Your task to perform on an android device: open app "Gmail" (install if not already installed) Image 0: 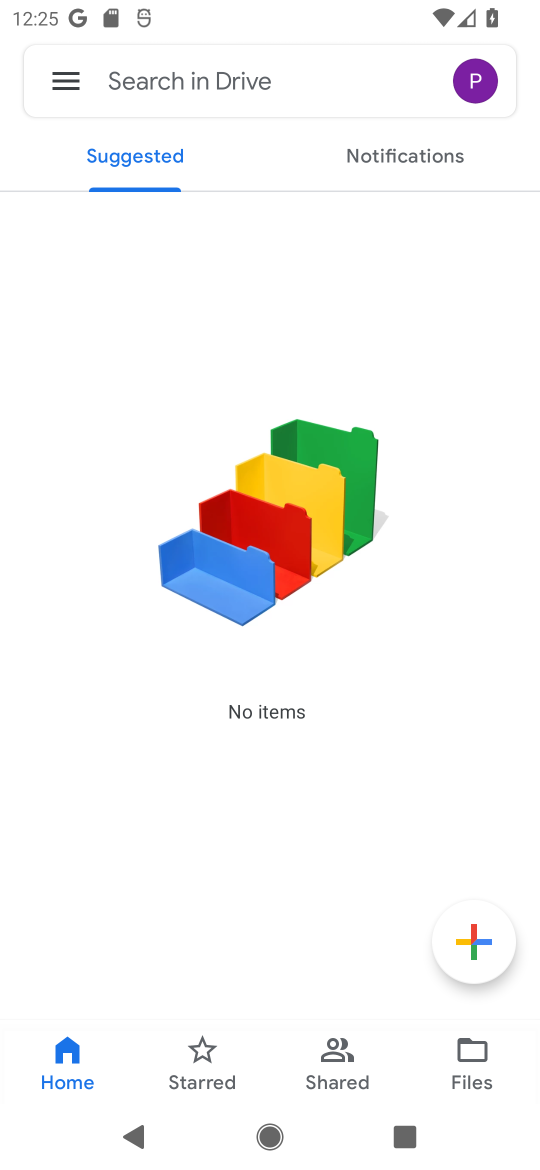
Step 0: press back button
Your task to perform on an android device: open app "Gmail" (install if not already installed) Image 1: 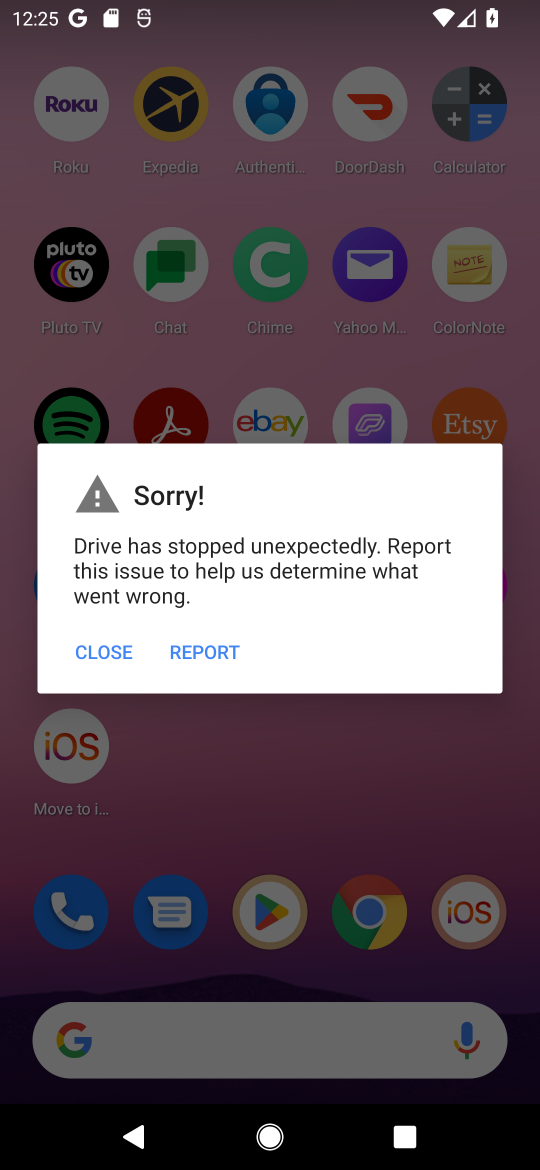
Step 1: click (91, 641)
Your task to perform on an android device: open app "Gmail" (install if not already installed) Image 2: 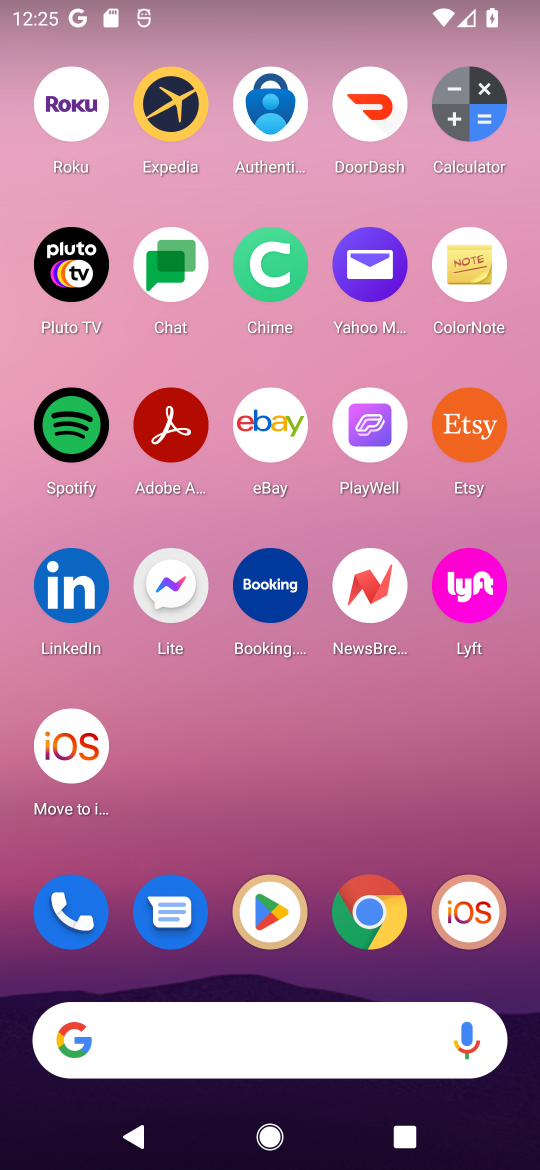
Step 2: drag from (107, 548) to (530, 705)
Your task to perform on an android device: open app "Gmail" (install if not already installed) Image 3: 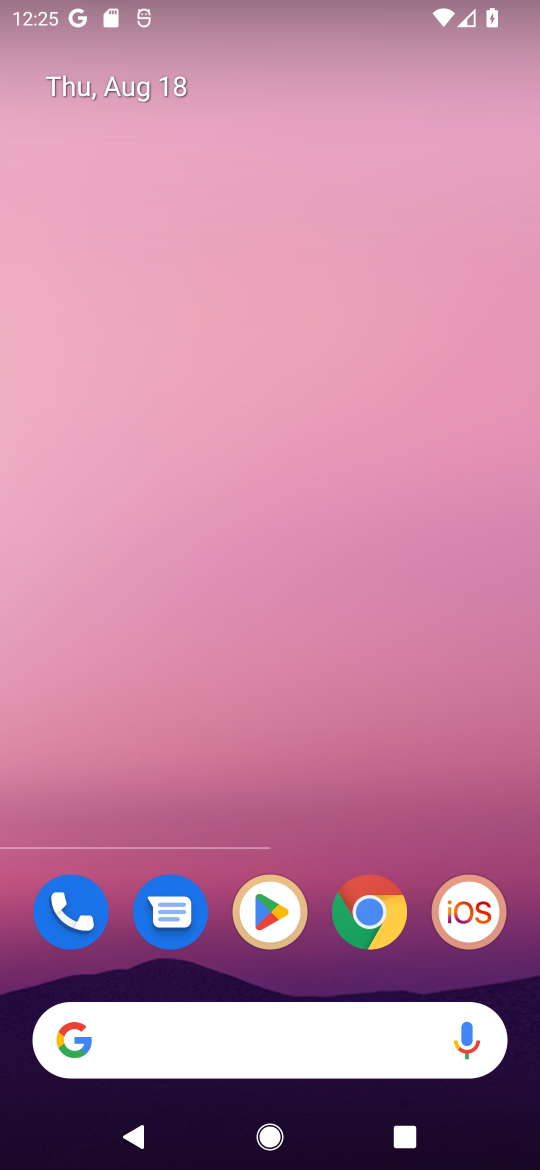
Step 3: drag from (231, 874) to (404, 4)
Your task to perform on an android device: open app "Gmail" (install if not already installed) Image 4: 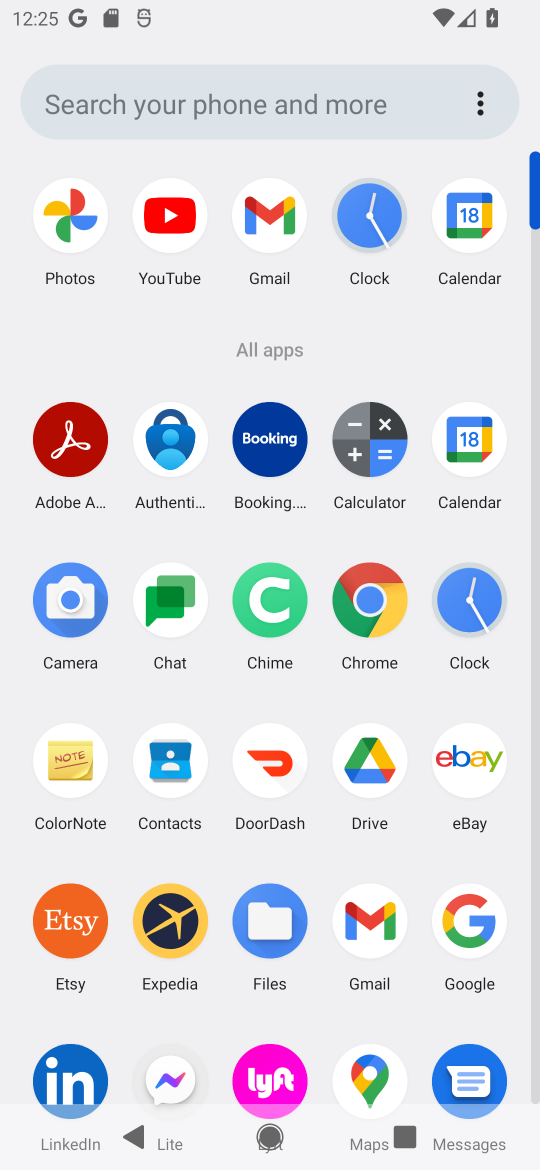
Step 4: click (236, 207)
Your task to perform on an android device: open app "Gmail" (install if not already installed) Image 5: 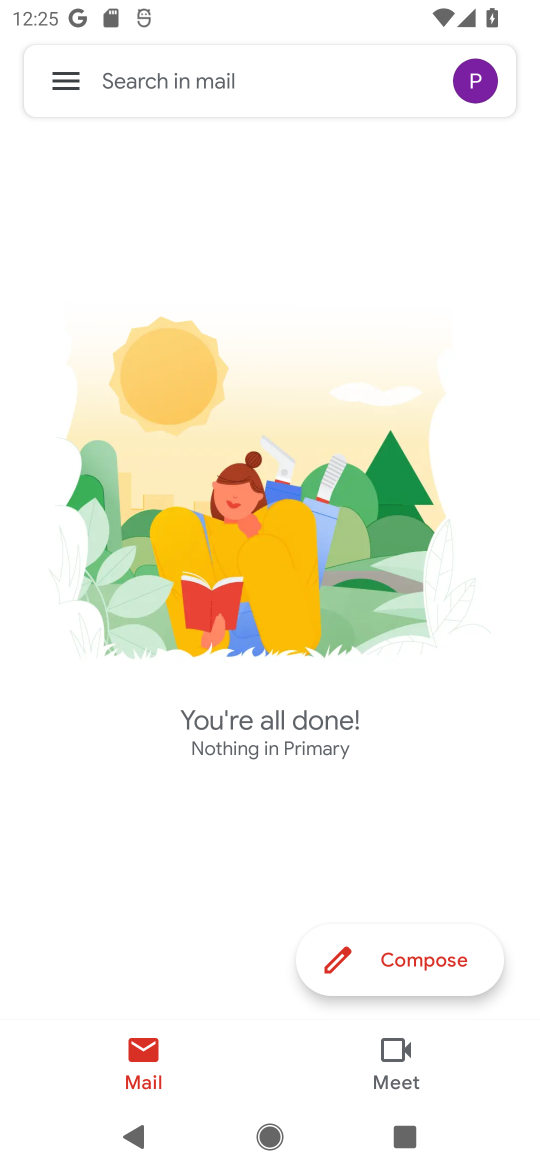
Step 5: task complete